Your task to perform on an android device: open chrome and create a bookmark for the current page Image 0: 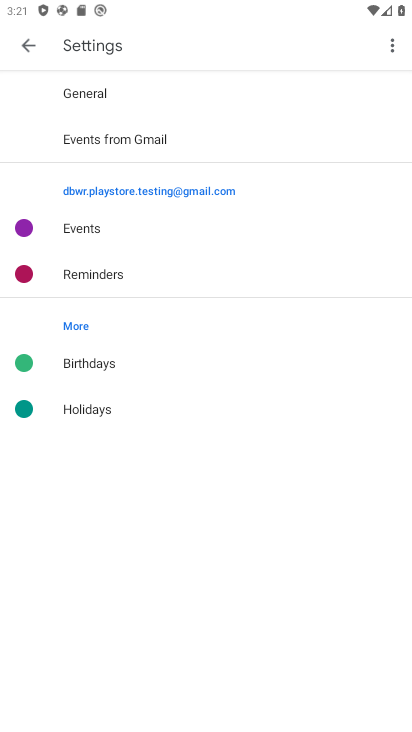
Step 0: press home button
Your task to perform on an android device: open chrome and create a bookmark for the current page Image 1: 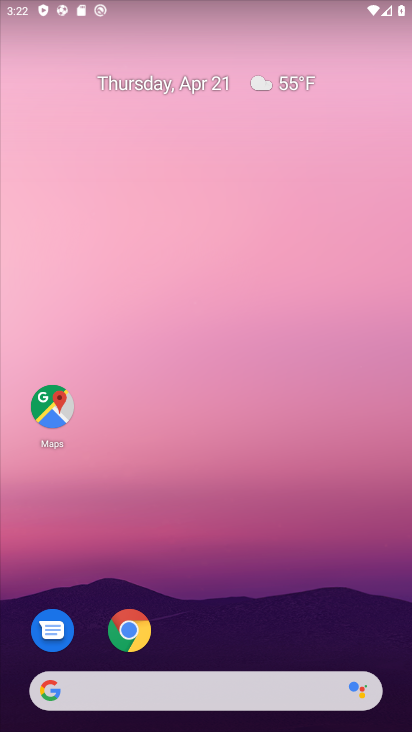
Step 1: click (139, 628)
Your task to perform on an android device: open chrome and create a bookmark for the current page Image 2: 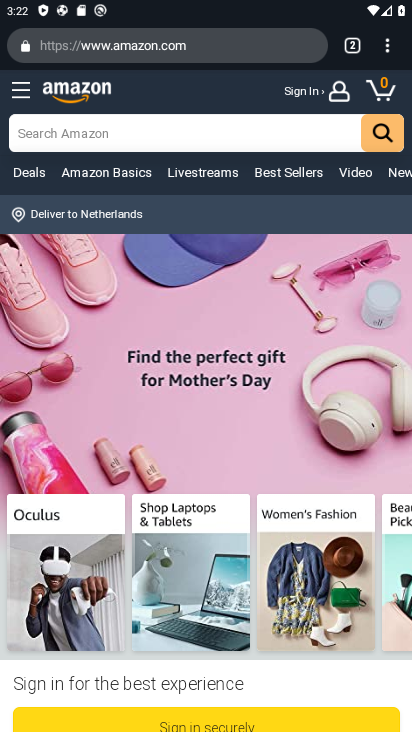
Step 2: click (390, 48)
Your task to perform on an android device: open chrome and create a bookmark for the current page Image 3: 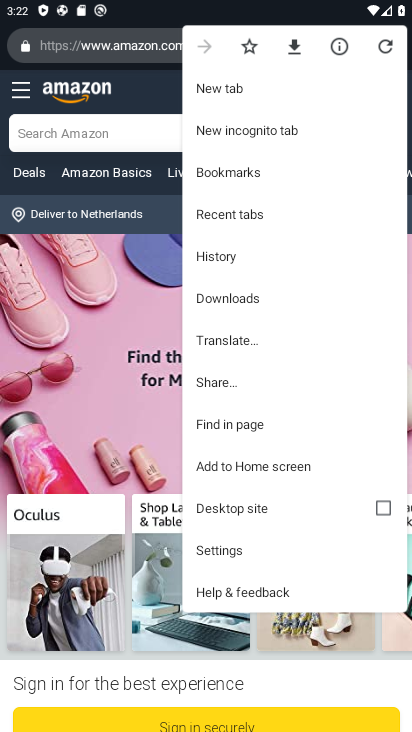
Step 3: click (248, 47)
Your task to perform on an android device: open chrome and create a bookmark for the current page Image 4: 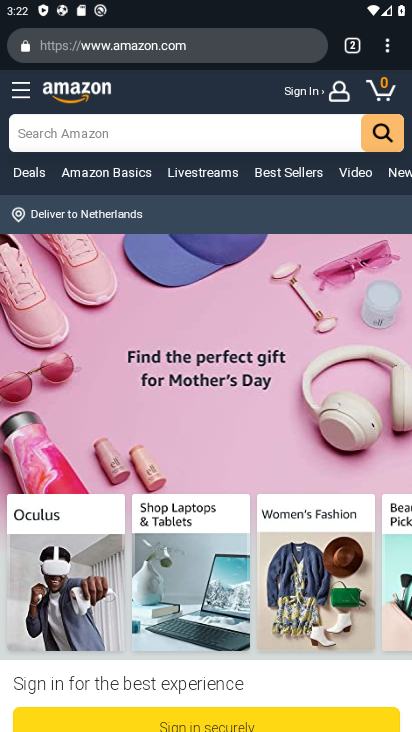
Step 4: task complete